Your task to perform on an android device: Show me recent news Image 0: 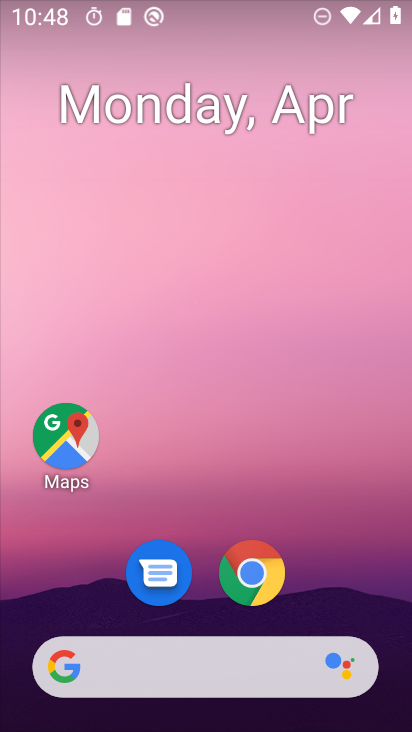
Step 0: drag from (335, 573) to (223, 101)
Your task to perform on an android device: Show me recent news Image 1: 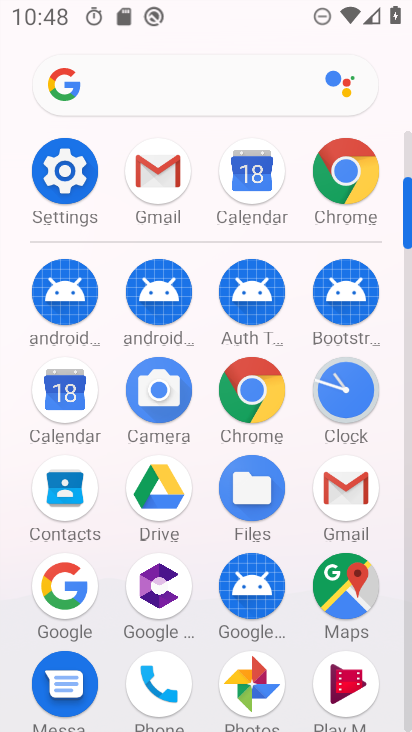
Step 1: press back button
Your task to perform on an android device: Show me recent news Image 2: 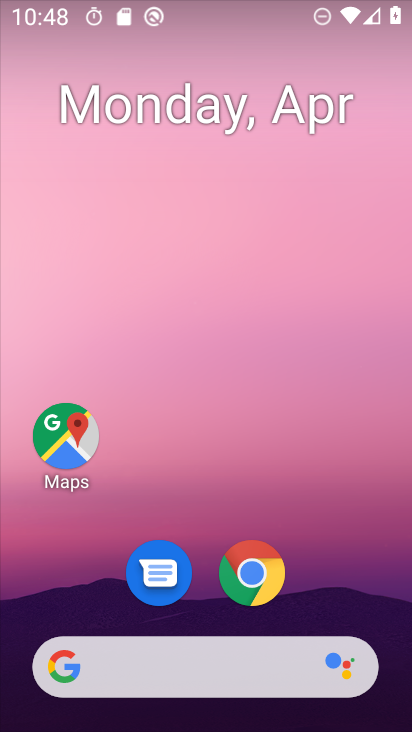
Step 2: click (261, 592)
Your task to perform on an android device: Show me recent news Image 3: 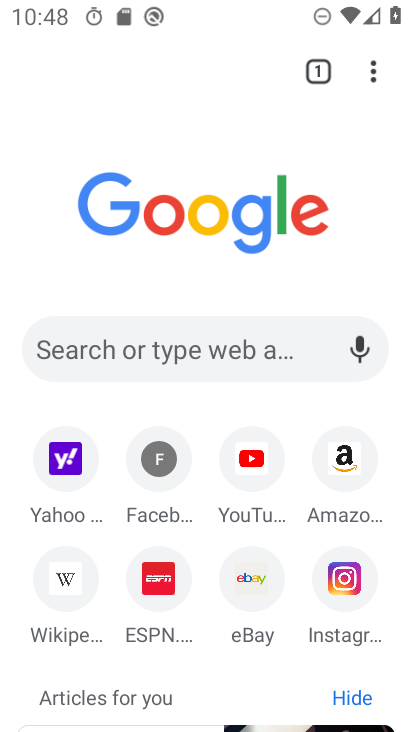
Step 3: drag from (266, 635) to (222, 210)
Your task to perform on an android device: Show me recent news Image 4: 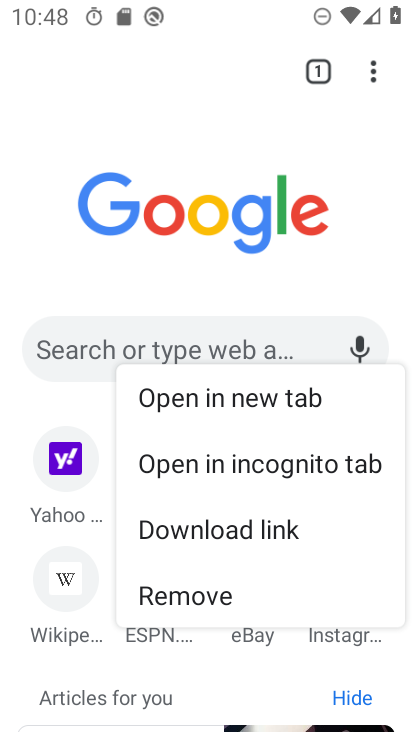
Step 4: click (356, 250)
Your task to perform on an android device: Show me recent news Image 5: 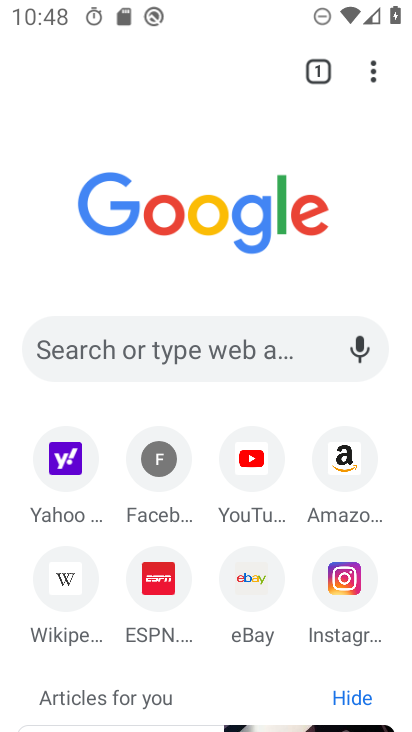
Step 5: drag from (388, 561) to (290, 193)
Your task to perform on an android device: Show me recent news Image 6: 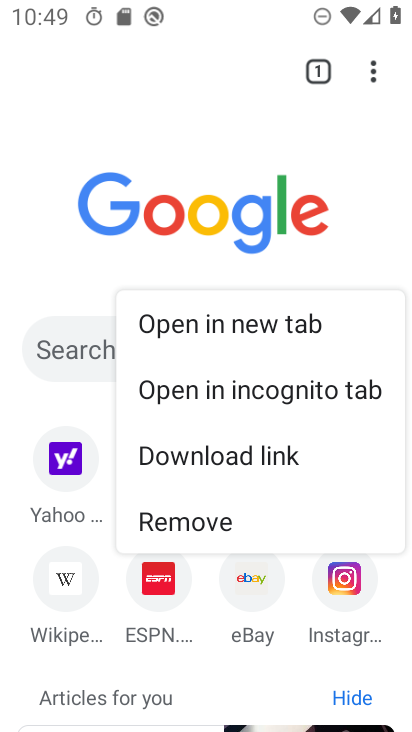
Step 6: click (81, 175)
Your task to perform on an android device: Show me recent news Image 7: 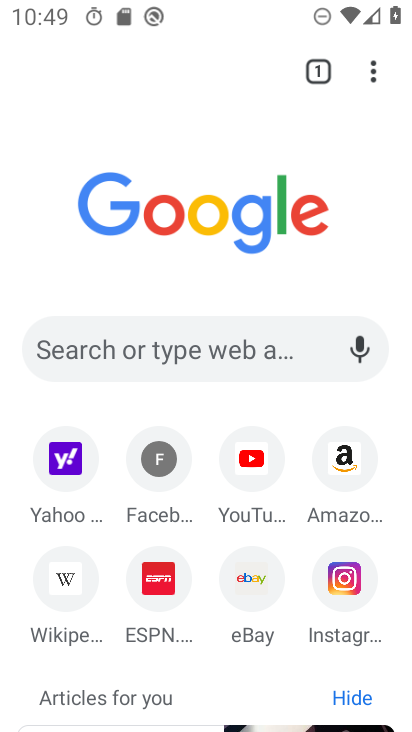
Step 7: task complete